Your task to perform on an android device: Empty the shopping cart on newegg.com. Add "logitech g933" to the cart on newegg.com Image 0: 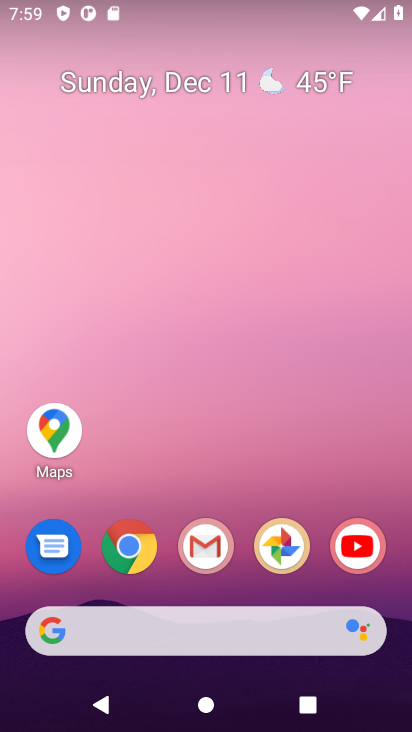
Step 0: click (131, 551)
Your task to perform on an android device: Empty the shopping cart on newegg.com. Add "logitech g933" to the cart on newegg.com Image 1: 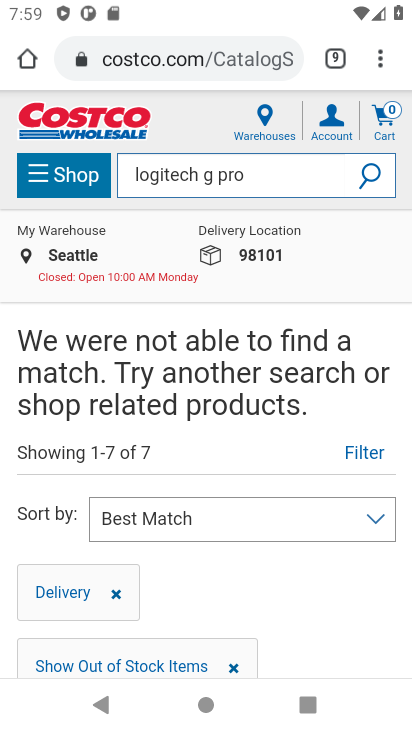
Step 1: click (185, 64)
Your task to perform on an android device: Empty the shopping cart on newegg.com. Add "logitech g933" to the cart on newegg.com Image 2: 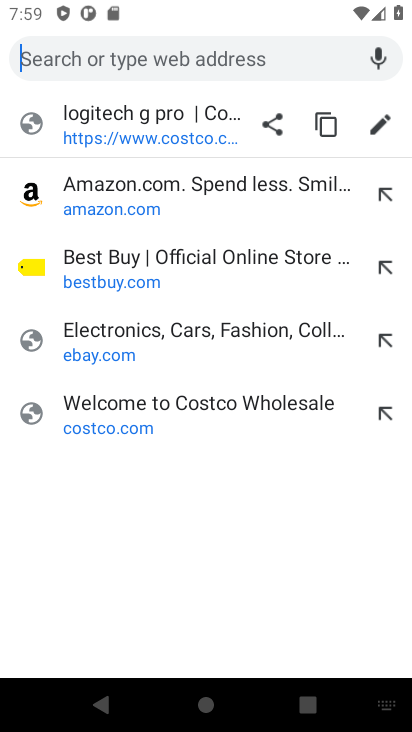
Step 2: type "newegg.com"
Your task to perform on an android device: Empty the shopping cart on newegg.com. Add "logitech g933" to the cart on newegg.com Image 3: 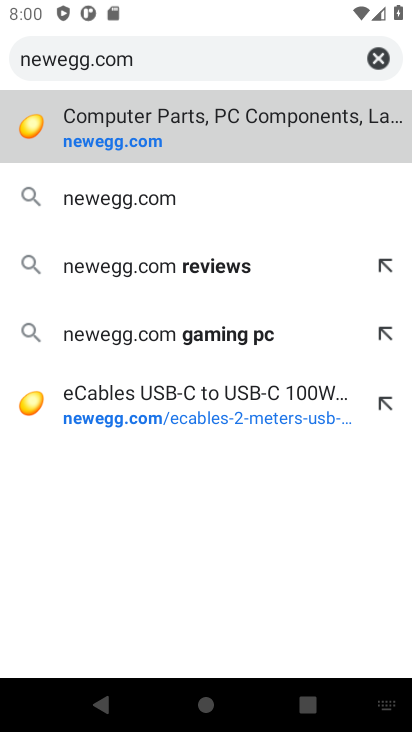
Step 3: click (132, 144)
Your task to perform on an android device: Empty the shopping cart on newegg.com. Add "logitech g933" to the cart on newegg.com Image 4: 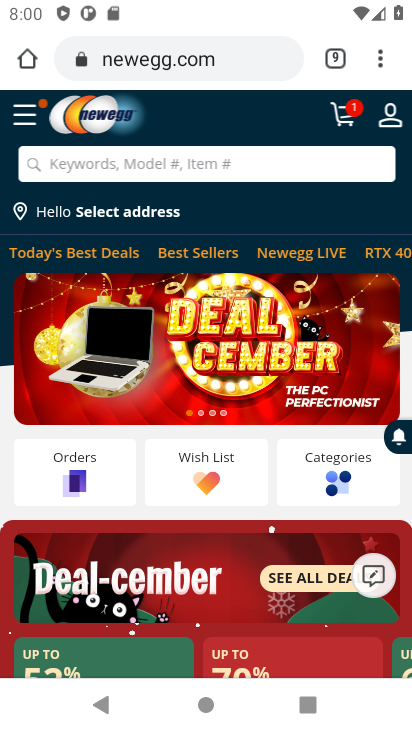
Step 4: click (345, 119)
Your task to perform on an android device: Empty the shopping cart on newegg.com. Add "logitech g933" to the cart on newegg.com Image 5: 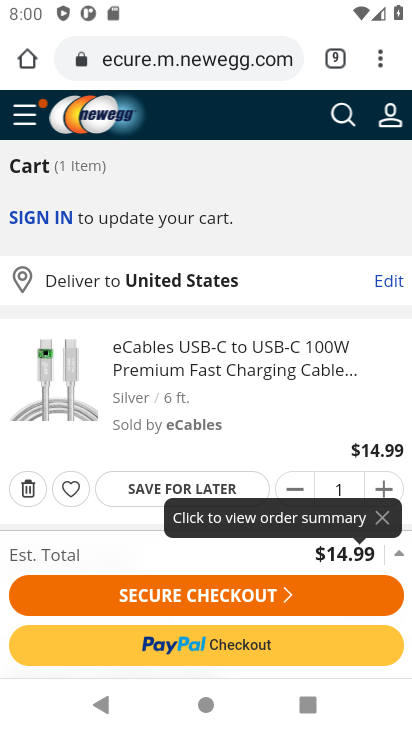
Step 5: click (28, 496)
Your task to perform on an android device: Empty the shopping cart on newegg.com. Add "logitech g933" to the cart on newegg.com Image 6: 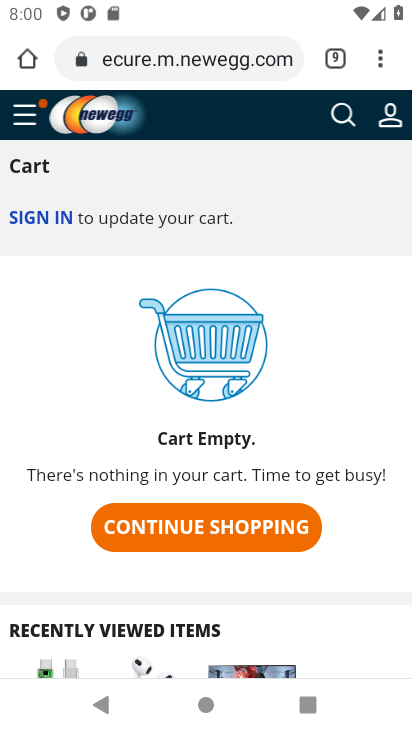
Step 6: click (346, 112)
Your task to perform on an android device: Empty the shopping cart on newegg.com. Add "logitech g933" to the cart on newegg.com Image 7: 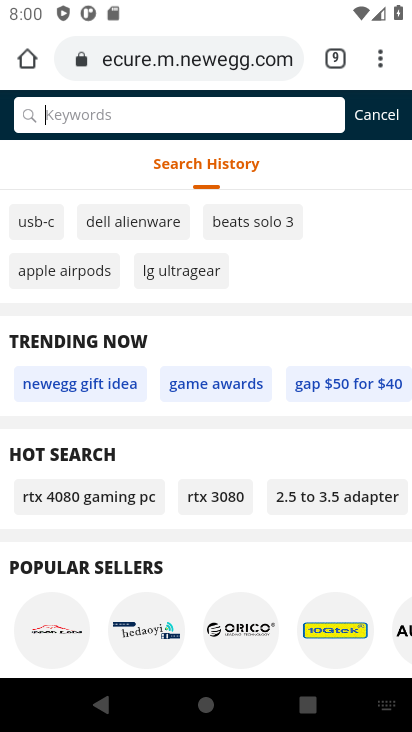
Step 7: type "logitech g933"
Your task to perform on an android device: Empty the shopping cart on newegg.com. Add "logitech g933" to the cart on newegg.com Image 8: 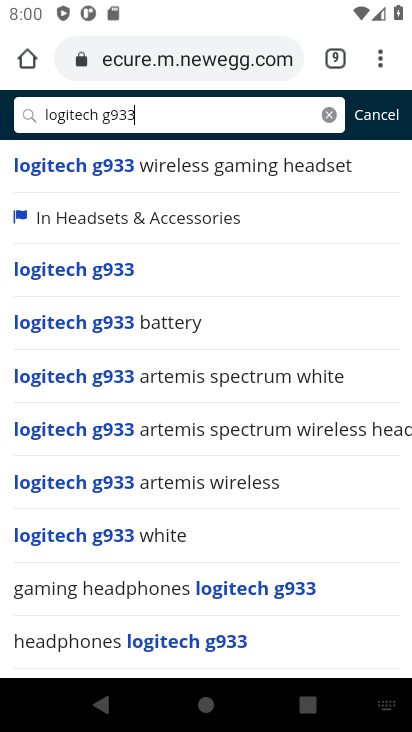
Step 8: click (75, 276)
Your task to perform on an android device: Empty the shopping cart on newegg.com. Add "logitech g933" to the cart on newegg.com Image 9: 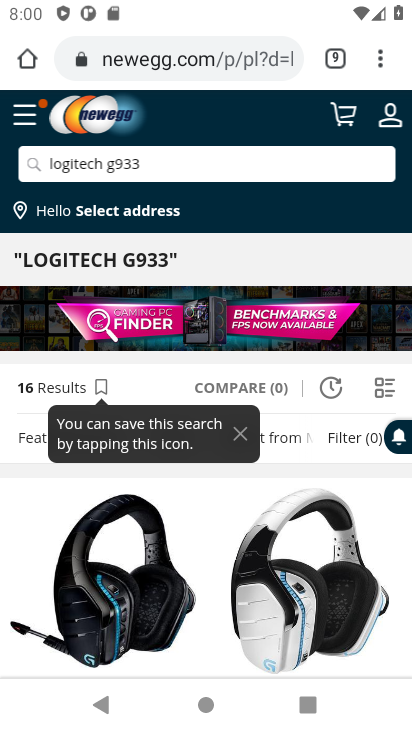
Step 9: drag from (107, 528) to (101, 268)
Your task to perform on an android device: Empty the shopping cart on newegg.com. Add "logitech g933" to the cart on newegg.com Image 10: 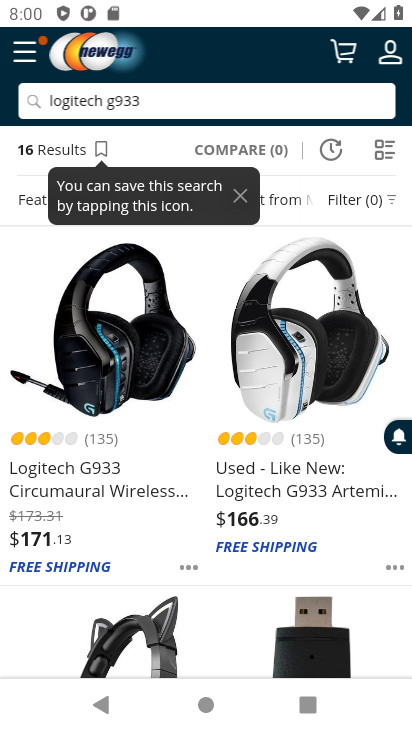
Step 10: click (52, 486)
Your task to perform on an android device: Empty the shopping cart on newegg.com. Add "logitech g933" to the cart on newegg.com Image 11: 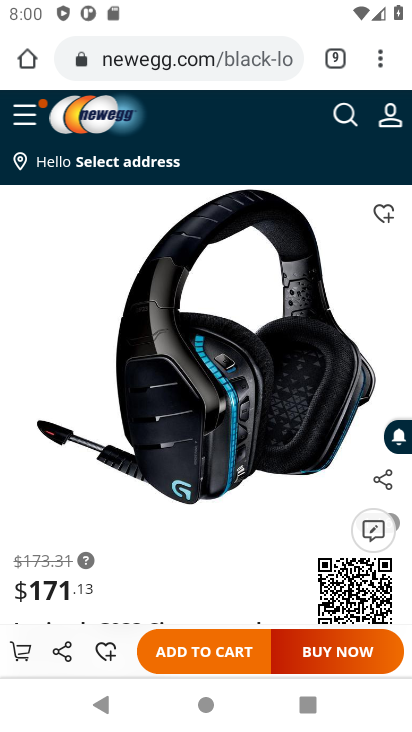
Step 11: click (193, 652)
Your task to perform on an android device: Empty the shopping cart on newegg.com. Add "logitech g933" to the cart on newegg.com Image 12: 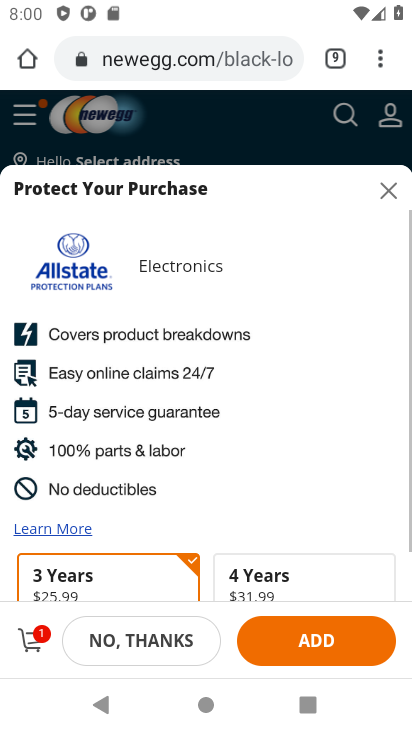
Step 12: task complete